Your task to perform on an android device: Show me recent news Image 0: 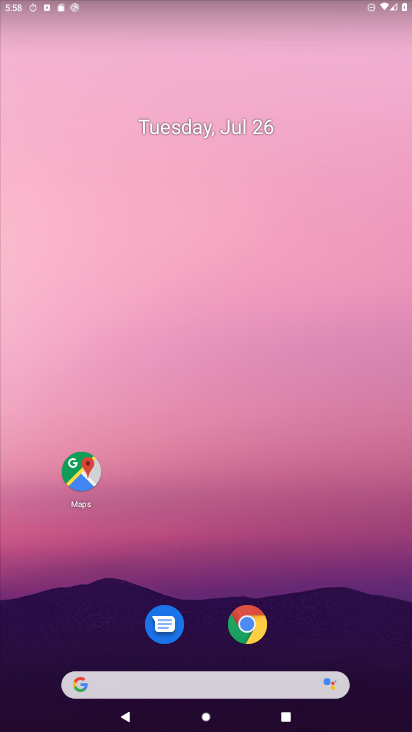
Step 0: drag from (184, 615) to (150, 3)
Your task to perform on an android device: Show me recent news Image 1: 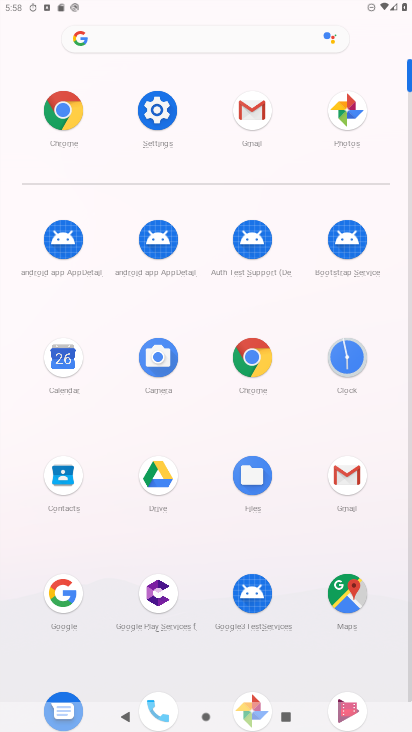
Step 1: click (258, 355)
Your task to perform on an android device: Show me recent news Image 2: 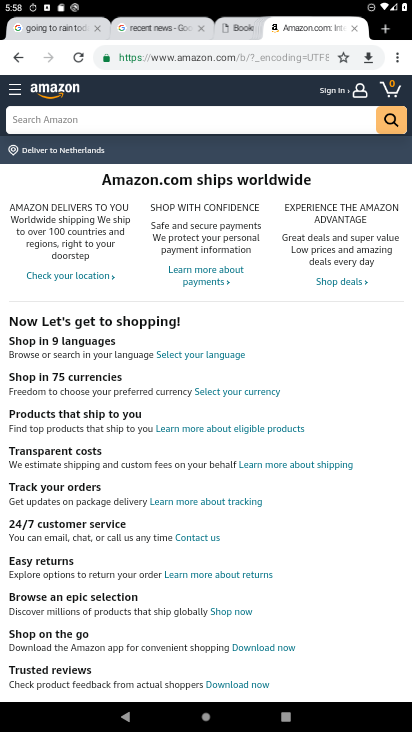
Step 2: click (170, 54)
Your task to perform on an android device: Show me recent news Image 3: 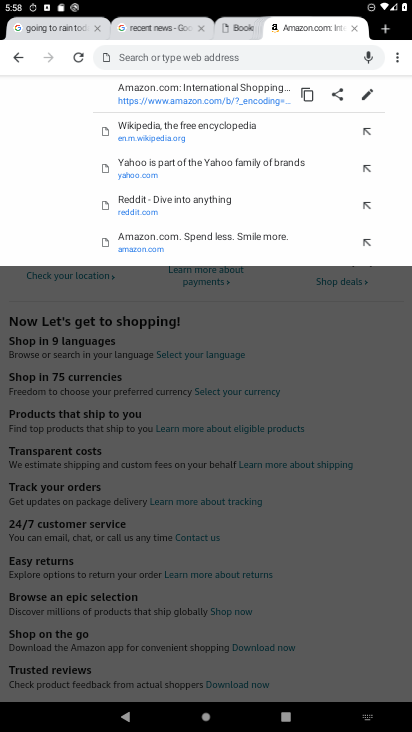
Step 3: type "show me recent news"
Your task to perform on an android device: Show me recent news Image 4: 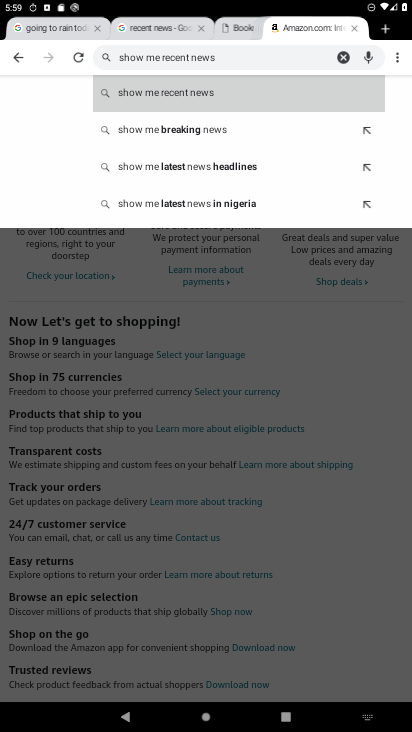
Step 4: click (292, 99)
Your task to perform on an android device: Show me recent news Image 5: 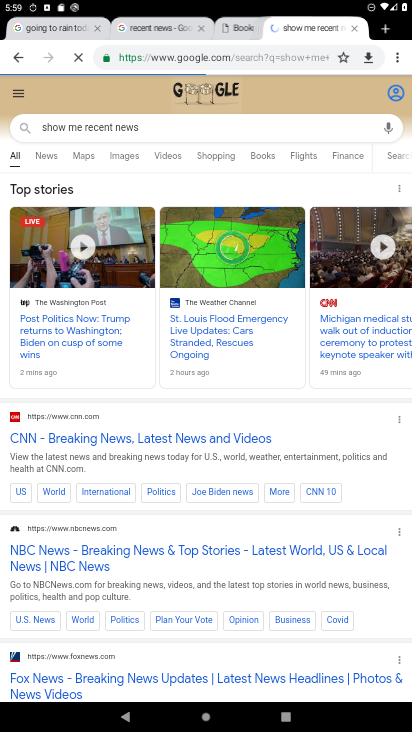
Step 5: task complete